Your task to perform on an android device: Add "razer kraken" to the cart on bestbuy.com Image 0: 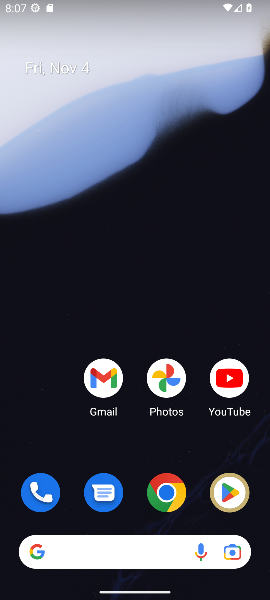
Step 0: drag from (134, 447) to (135, 29)
Your task to perform on an android device: Add "razer kraken" to the cart on bestbuy.com Image 1: 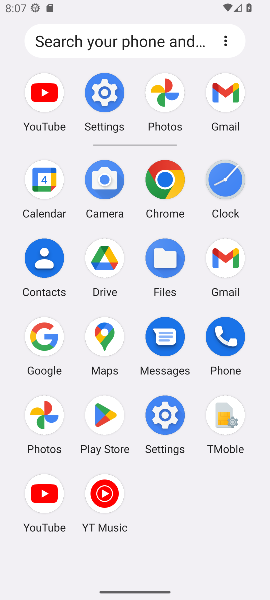
Step 1: click (164, 183)
Your task to perform on an android device: Add "razer kraken" to the cart on bestbuy.com Image 2: 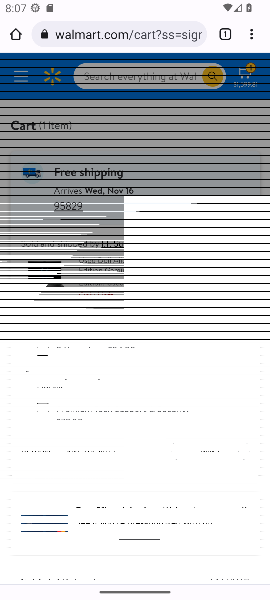
Step 2: click (153, 34)
Your task to perform on an android device: Add "razer kraken" to the cart on bestbuy.com Image 3: 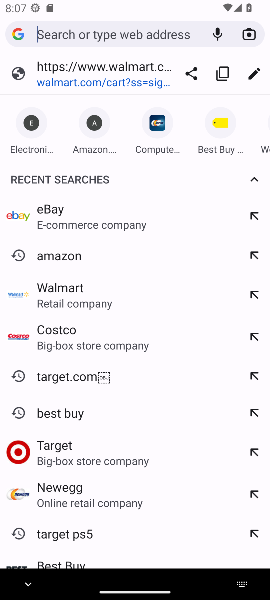
Step 3: type "bestbuy.com"
Your task to perform on an android device: Add "razer kraken" to the cart on bestbuy.com Image 4: 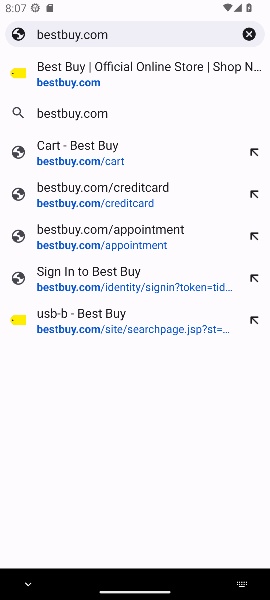
Step 4: press enter
Your task to perform on an android device: Add "razer kraken" to the cart on bestbuy.com Image 5: 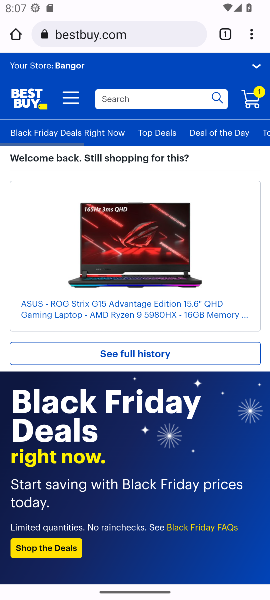
Step 5: click (160, 102)
Your task to perform on an android device: Add "razer kraken" to the cart on bestbuy.com Image 6: 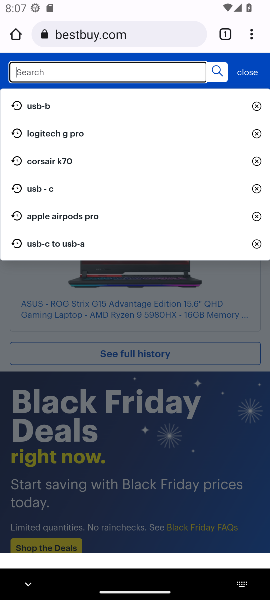
Step 6: type "razer kraken"
Your task to perform on an android device: Add "razer kraken" to the cart on bestbuy.com Image 7: 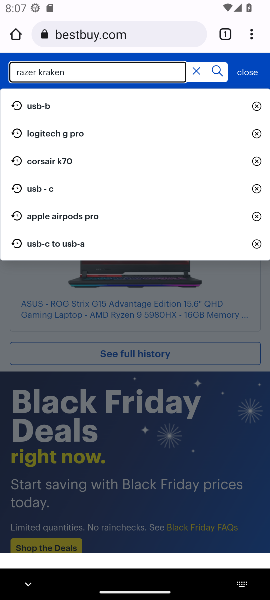
Step 7: press enter
Your task to perform on an android device: Add "razer kraken" to the cart on bestbuy.com Image 8: 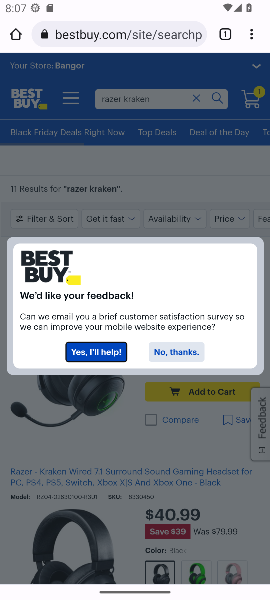
Step 8: click (166, 351)
Your task to perform on an android device: Add "razer kraken" to the cart on bestbuy.com Image 9: 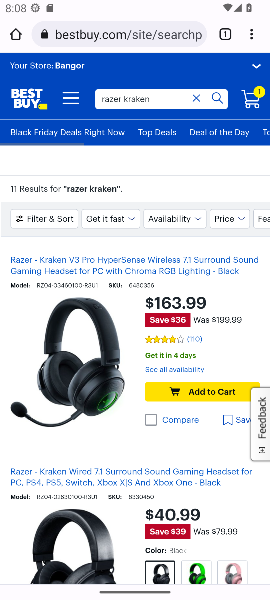
Step 9: click (216, 389)
Your task to perform on an android device: Add "razer kraken" to the cart on bestbuy.com Image 10: 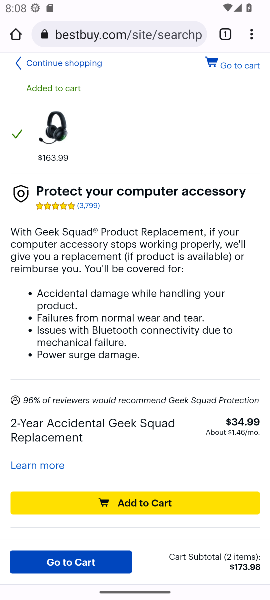
Step 10: task complete